Your task to perform on an android device: turn smart compose on in the gmail app Image 0: 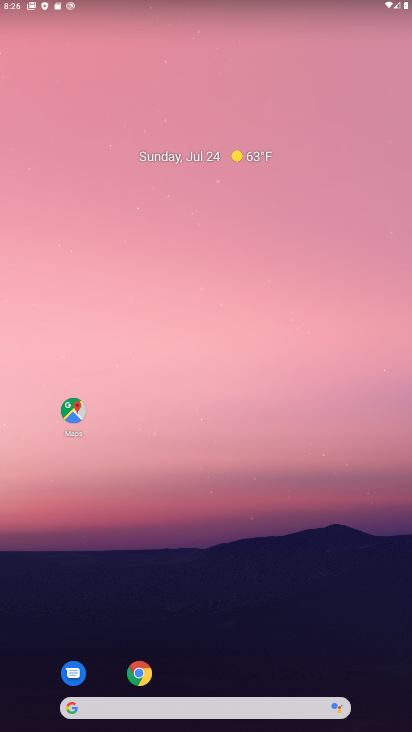
Step 0: drag from (232, 698) to (173, 112)
Your task to perform on an android device: turn smart compose on in the gmail app Image 1: 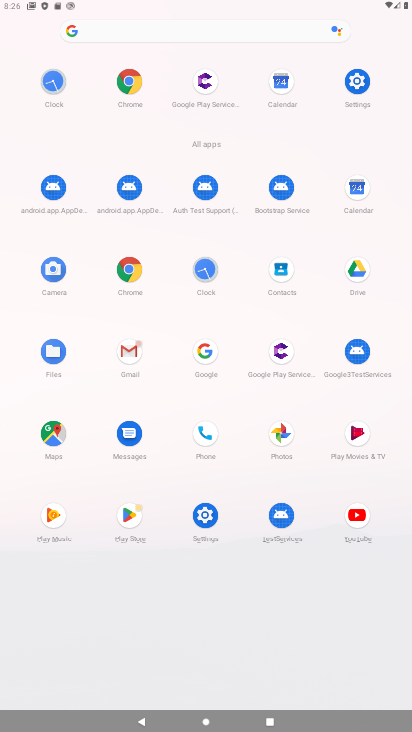
Step 1: click (132, 354)
Your task to perform on an android device: turn smart compose on in the gmail app Image 2: 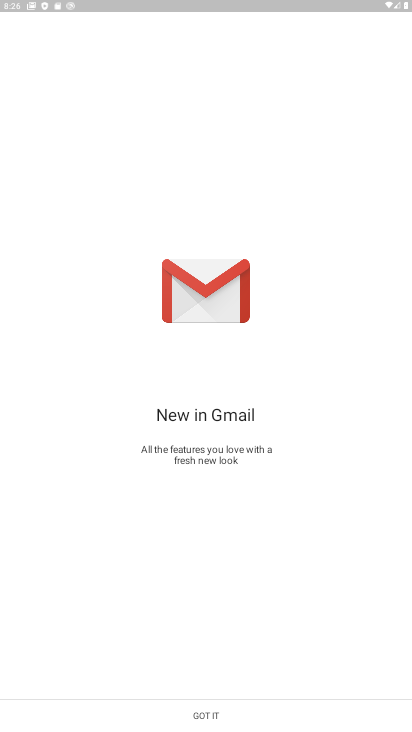
Step 2: click (215, 711)
Your task to perform on an android device: turn smart compose on in the gmail app Image 3: 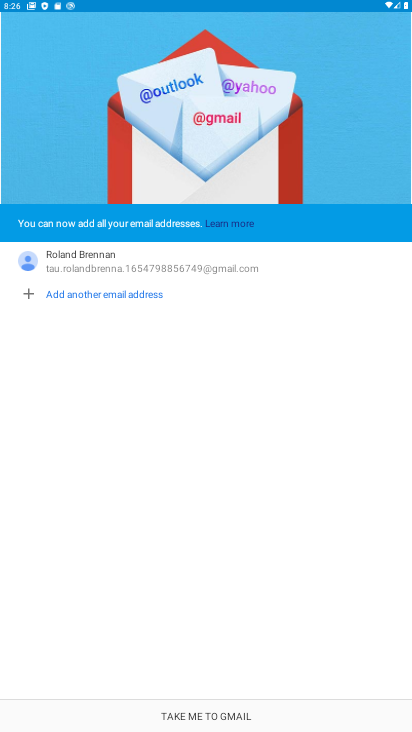
Step 3: click (215, 705)
Your task to perform on an android device: turn smart compose on in the gmail app Image 4: 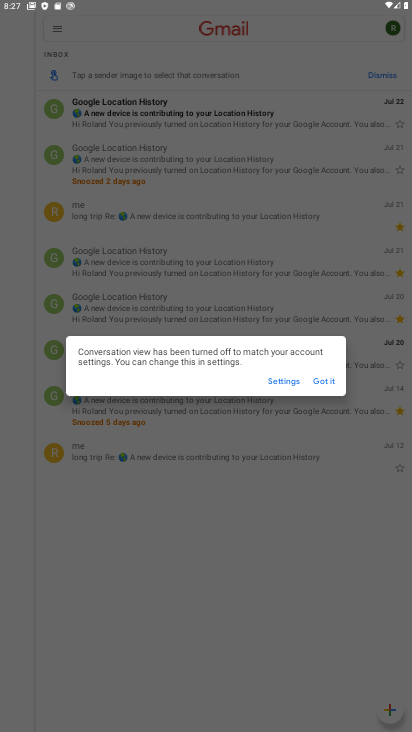
Step 4: click (322, 380)
Your task to perform on an android device: turn smart compose on in the gmail app Image 5: 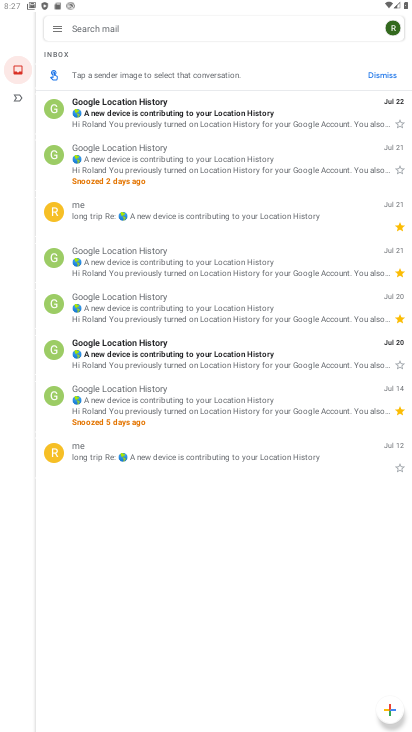
Step 5: click (98, 116)
Your task to perform on an android device: turn smart compose on in the gmail app Image 6: 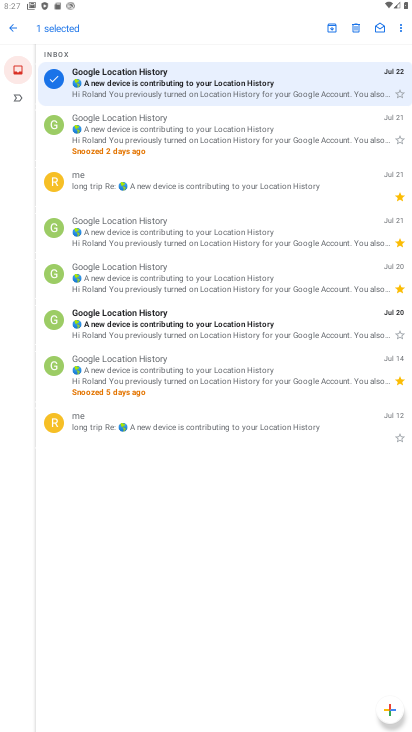
Step 6: click (10, 30)
Your task to perform on an android device: turn smart compose on in the gmail app Image 7: 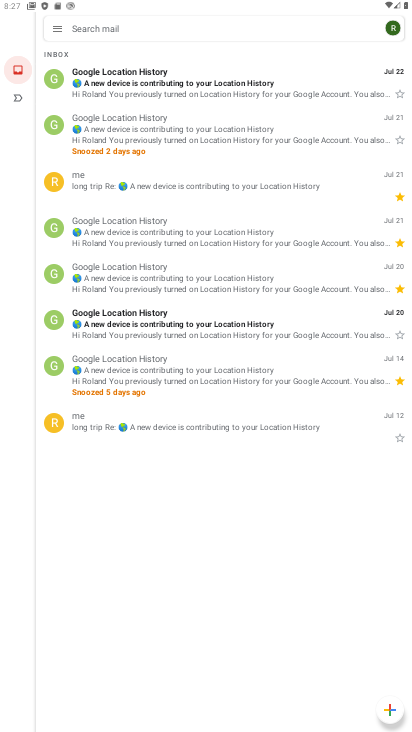
Step 7: click (10, 30)
Your task to perform on an android device: turn smart compose on in the gmail app Image 8: 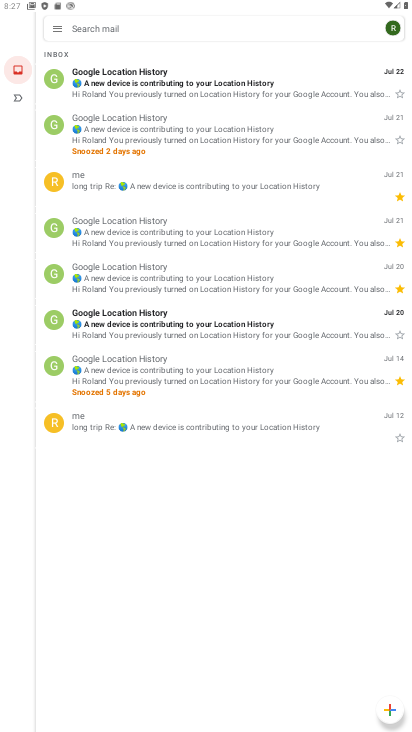
Step 8: click (63, 27)
Your task to perform on an android device: turn smart compose on in the gmail app Image 9: 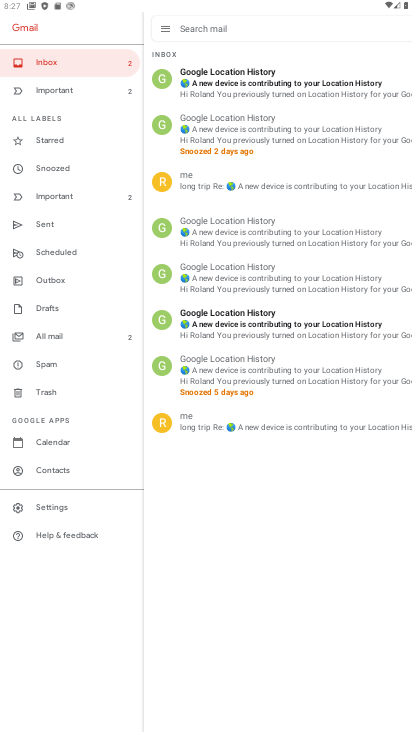
Step 9: click (68, 515)
Your task to perform on an android device: turn smart compose on in the gmail app Image 10: 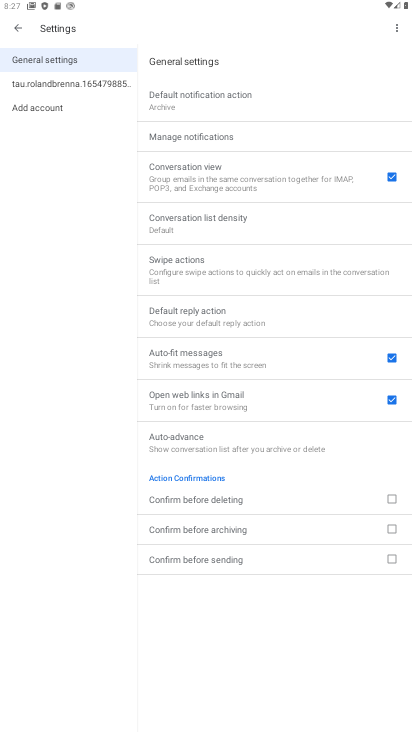
Step 10: click (41, 80)
Your task to perform on an android device: turn smart compose on in the gmail app Image 11: 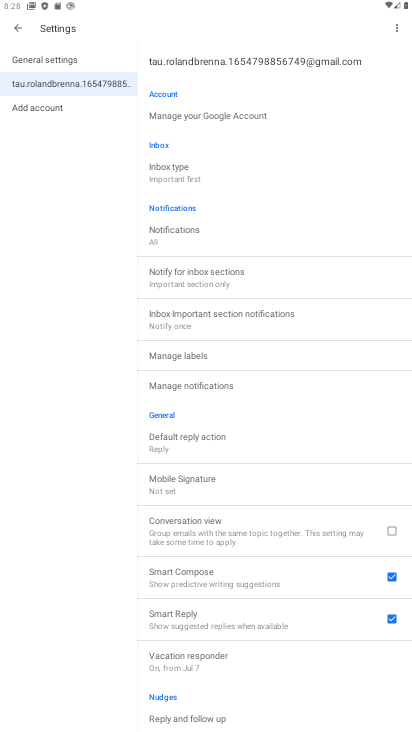
Step 11: task complete